Your task to perform on an android device: turn on translation in the chrome app Image 0: 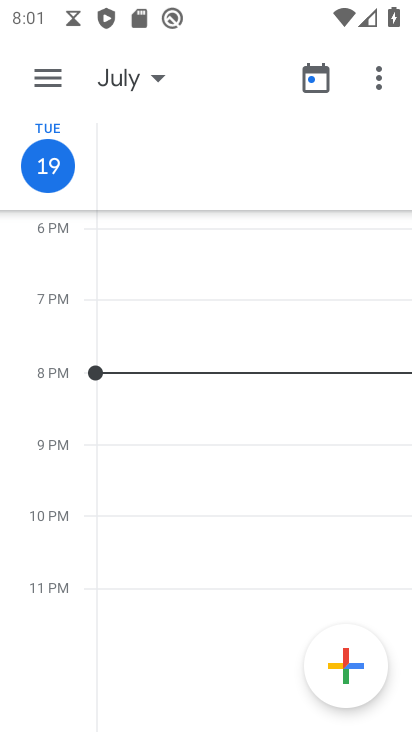
Step 0: press back button
Your task to perform on an android device: turn on translation in the chrome app Image 1: 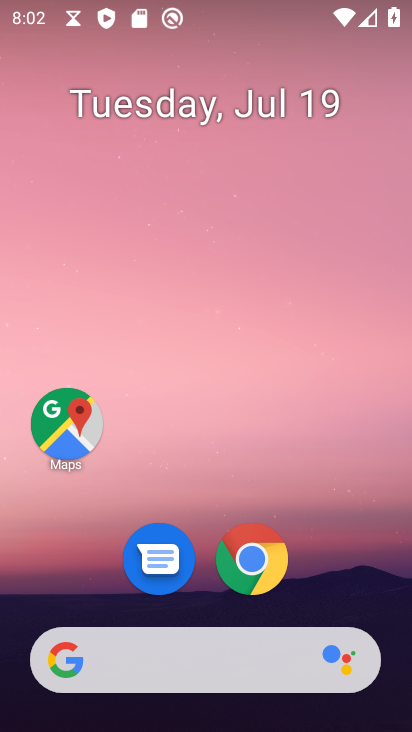
Step 1: click (254, 559)
Your task to perform on an android device: turn on translation in the chrome app Image 2: 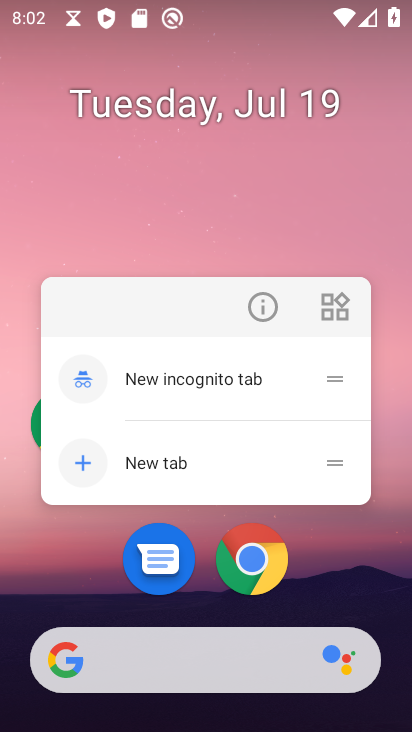
Step 2: click (258, 559)
Your task to perform on an android device: turn on translation in the chrome app Image 3: 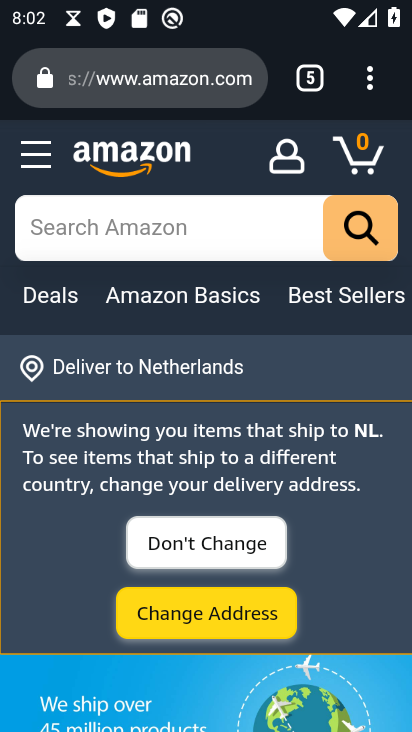
Step 3: drag from (371, 77) to (85, 612)
Your task to perform on an android device: turn on translation in the chrome app Image 4: 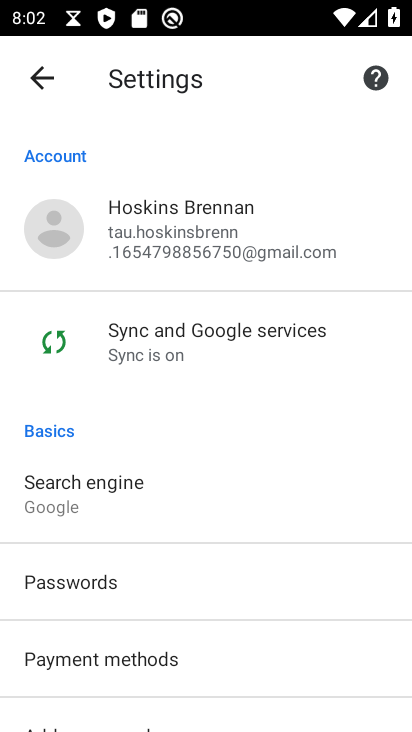
Step 4: drag from (228, 627) to (308, 134)
Your task to perform on an android device: turn on translation in the chrome app Image 5: 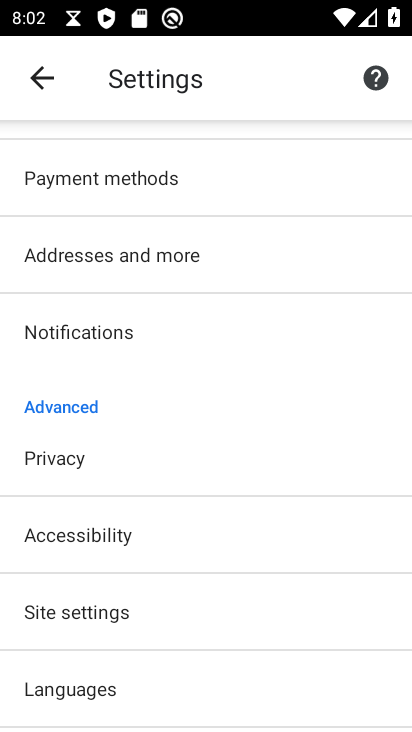
Step 5: click (79, 688)
Your task to perform on an android device: turn on translation in the chrome app Image 6: 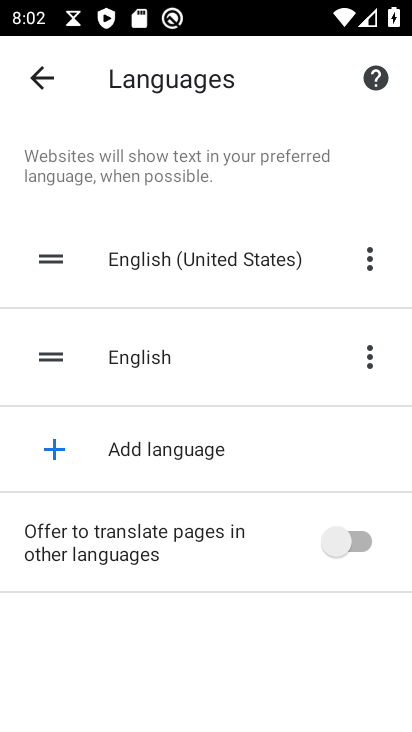
Step 6: click (342, 545)
Your task to perform on an android device: turn on translation in the chrome app Image 7: 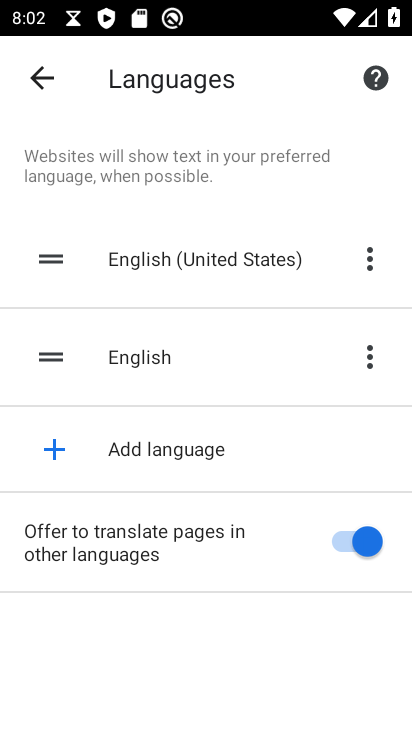
Step 7: task complete